Your task to perform on an android device: Open the calendar app, open the side menu, and click the "Day" option Image 0: 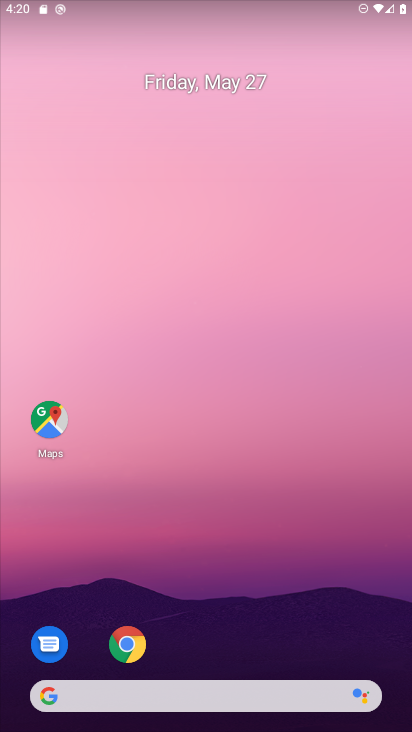
Step 0: click (184, 91)
Your task to perform on an android device: Open the calendar app, open the side menu, and click the "Day" option Image 1: 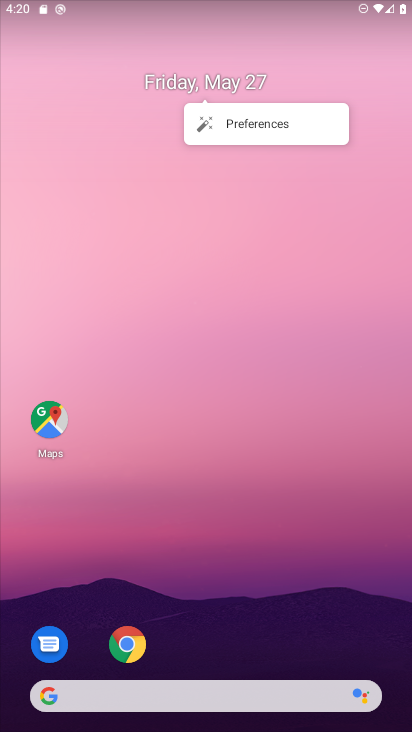
Step 1: click (167, 80)
Your task to perform on an android device: Open the calendar app, open the side menu, and click the "Day" option Image 2: 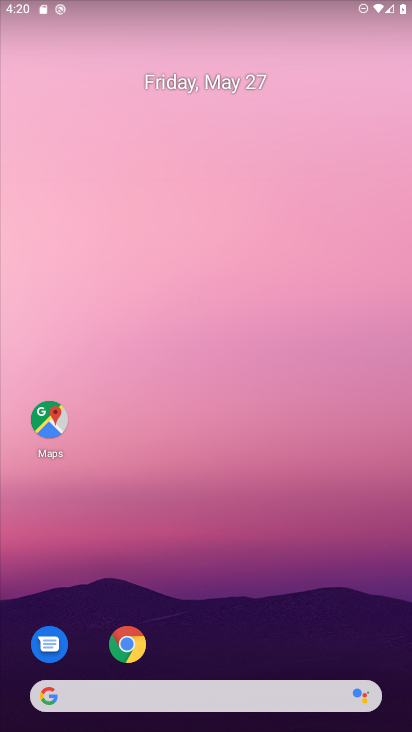
Step 2: click (167, 80)
Your task to perform on an android device: Open the calendar app, open the side menu, and click the "Day" option Image 3: 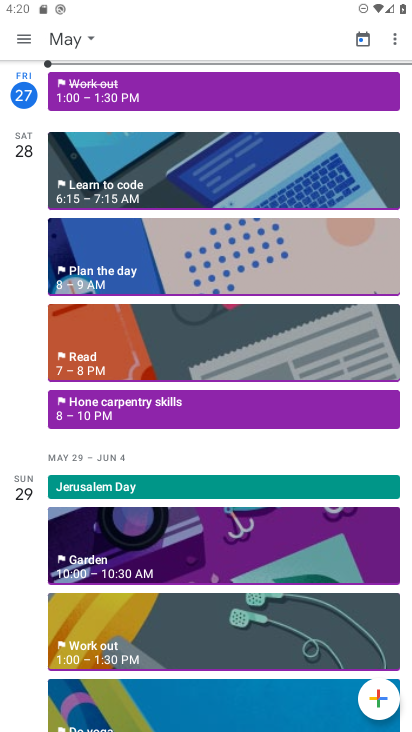
Step 3: click (36, 53)
Your task to perform on an android device: Open the calendar app, open the side menu, and click the "Day" option Image 4: 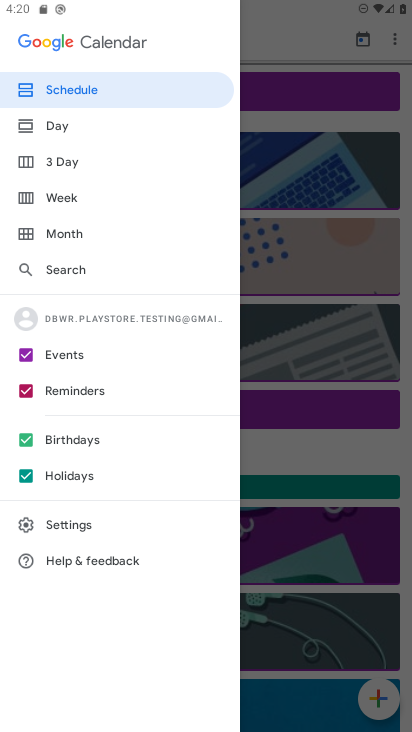
Step 4: click (53, 122)
Your task to perform on an android device: Open the calendar app, open the side menu, and click the "Day" option Image 5: 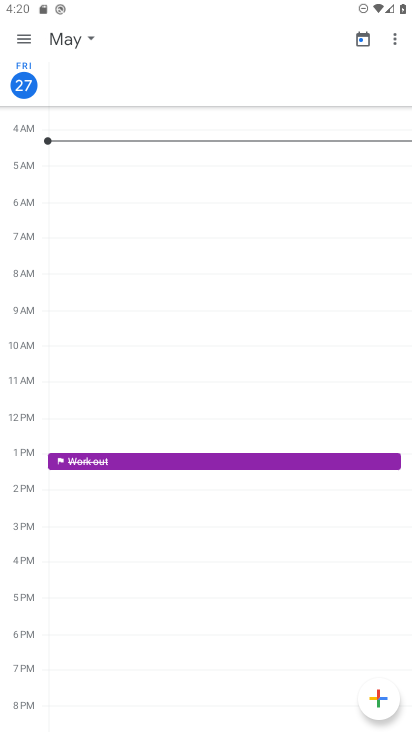
Step 5: task complete